Your task to perform on an android device: Open eBay Image 0: 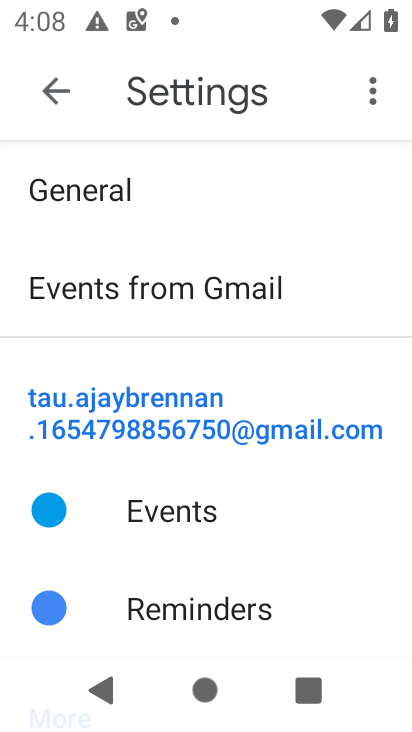
Step 0: press home button
Your task to perform on an android device: Open eBay Image 1: 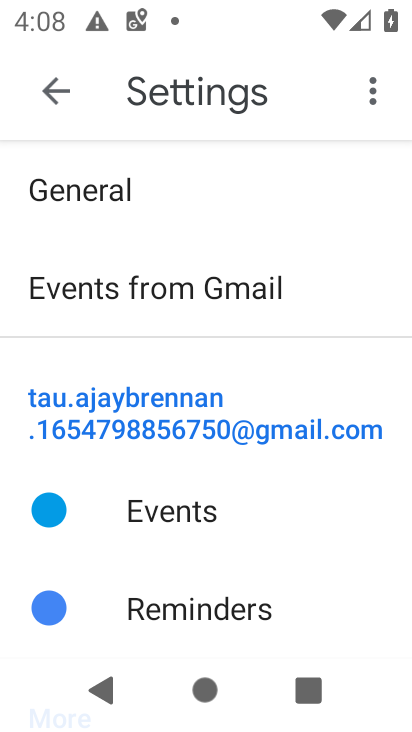
Step 1: press home button
Your task to perform on an android device: Open eBay Image 2: 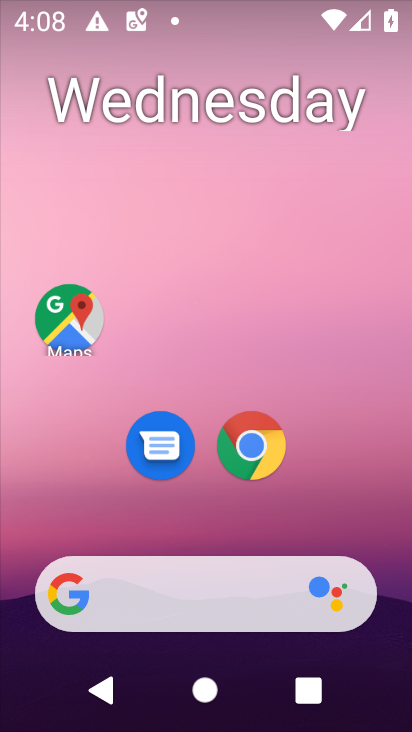
Step 2: drag from (320, 491) to (120, 37)
Your task to perform on an android device: Open eBay Image 3: 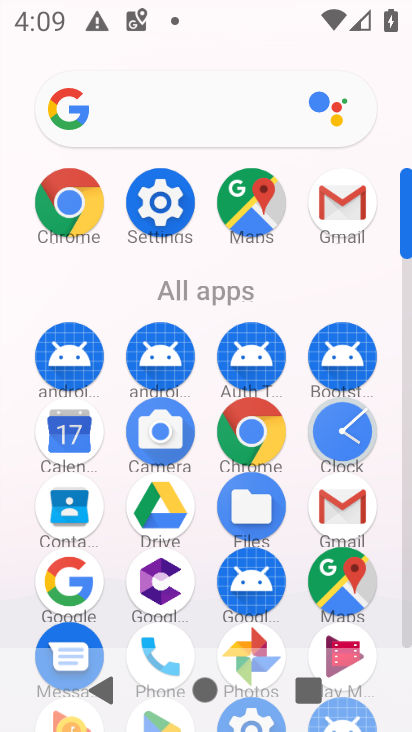
Step 3: click (243, 434)
Your task to perform on an android device: Open eBay Image 4: 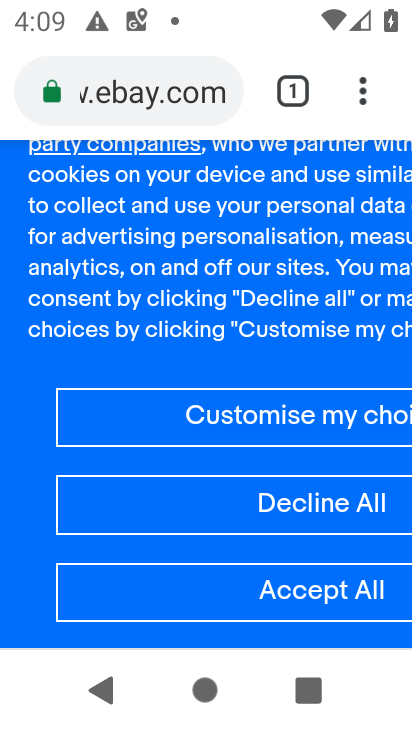
Step 4: task complete